Your task to perform on an android device: Go to settings Image 0: 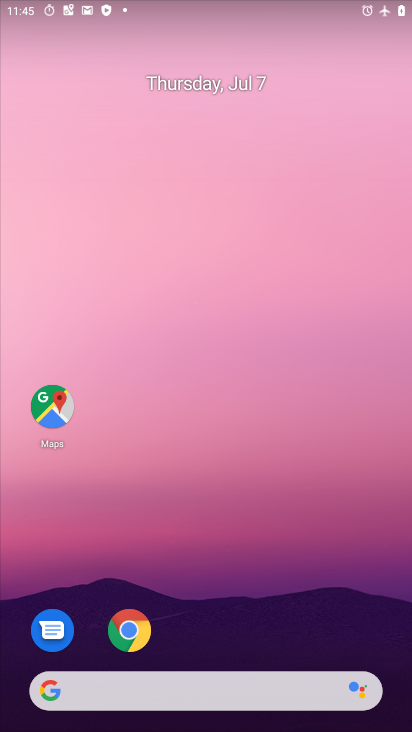
Step 0: drag from (212, 655) to (195, 202)
Your task to perform on an android device: Go to settings Image 1: 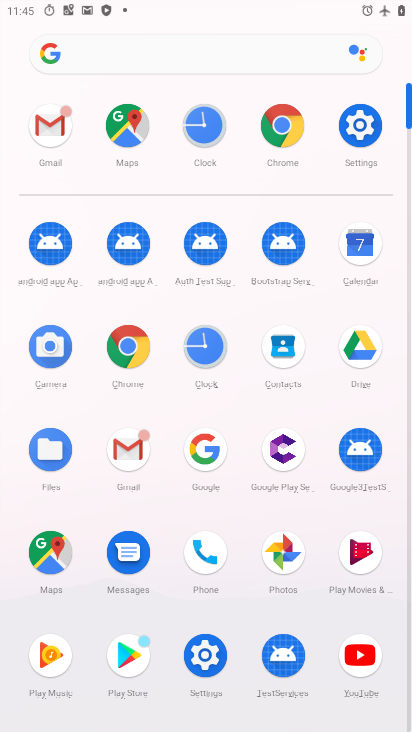
Step 1: click (361, 131)
Your task to perform on an android device: Go to settings Image 2: 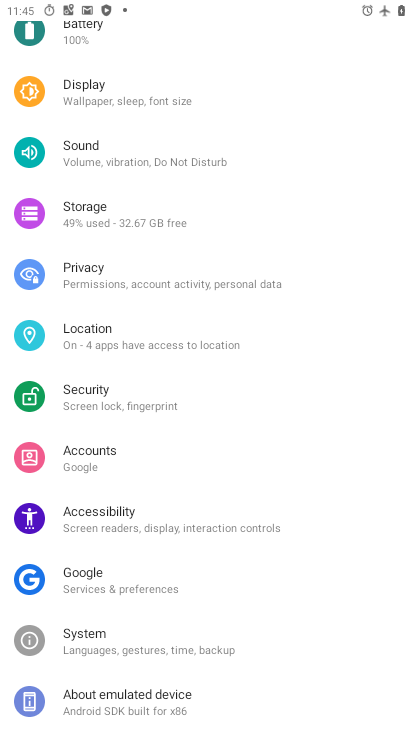
Step 2: task complete